Your task to perform on an android device: change keyboard looks Image 0: 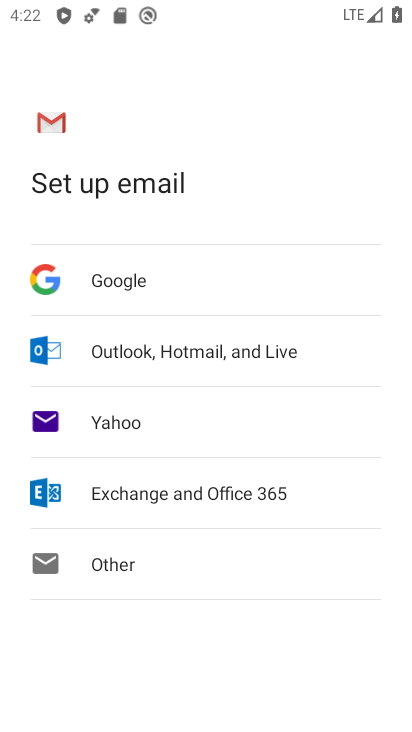
Step 0: press home button
Your task to perform on an android device: change keyboard looks Image 1: 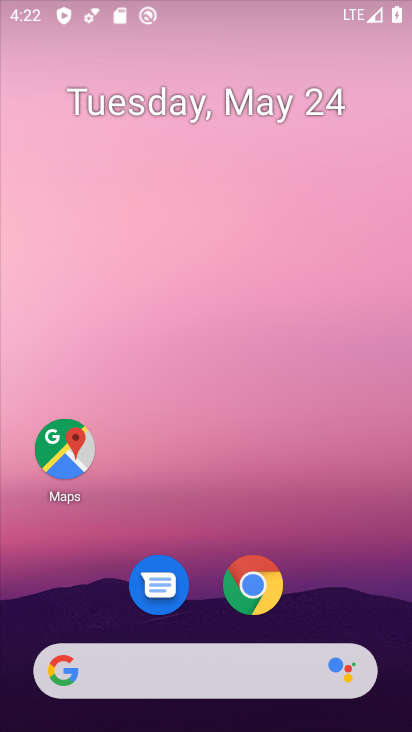
Step 1: drag from (253, 449) to (270, 81)
Your task to perform on an android device: change keyboard looks Image 2: 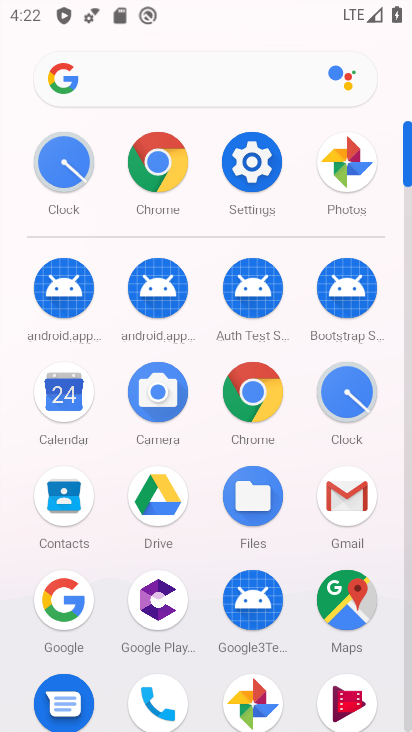
Step 2: click (250, 164)
Your task to perform on an android device: change keyboard looks Image 3: 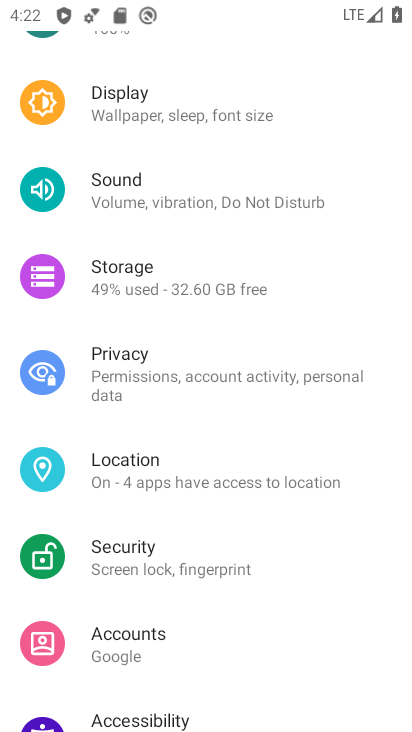
Step 3: drag from (220, 574) to (262, 80)
Your task to perform on an android device: change keyboard looks Image 4: 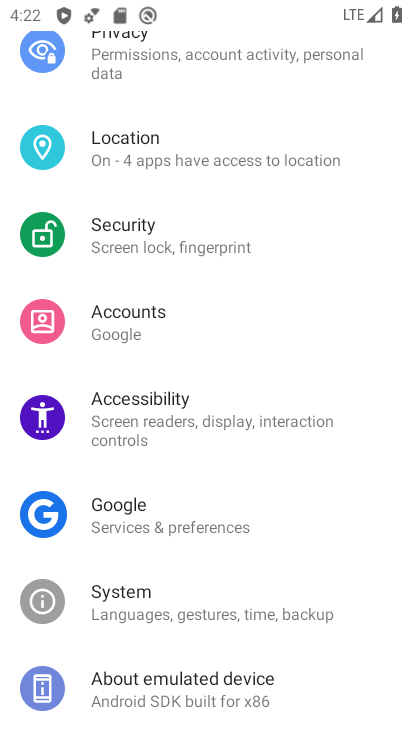
Step 4: click (207, 605)
Your task to perform on an android device: change keyboard looks Image 5: 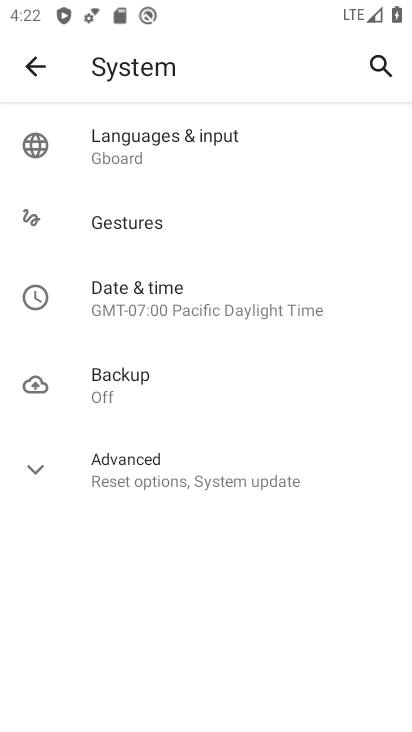
Step 5: click (208, 155)
Your task to perform on an android device: change keyboard looks Image 6: 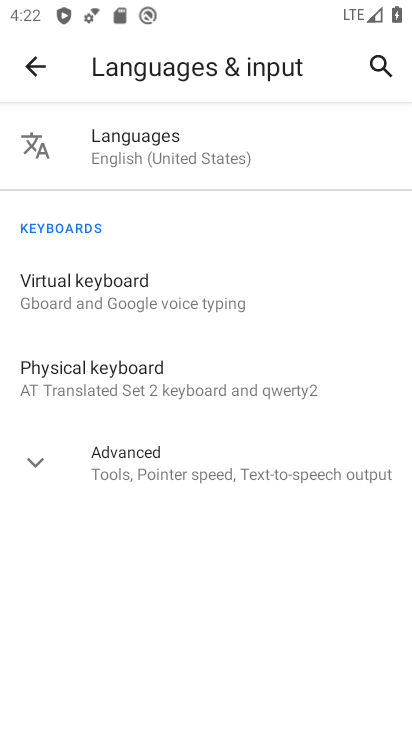
Step 6: click (163, 274)
Your task to perform on an android device: change keyboard looks Image 7: 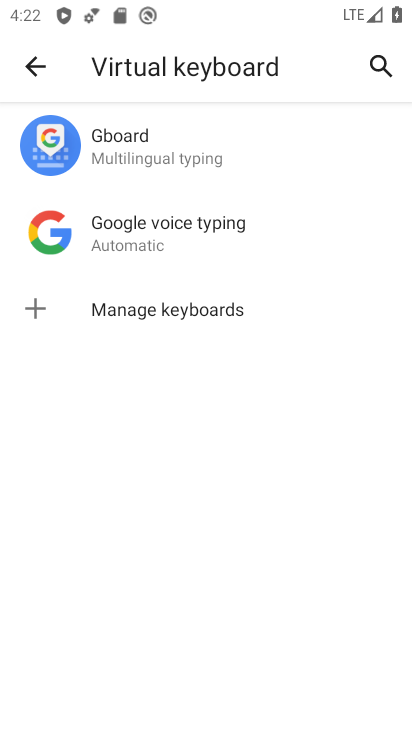
Step 7: click (152, 152)
Your task to perform on an android device: change keyboard looks Image 8: 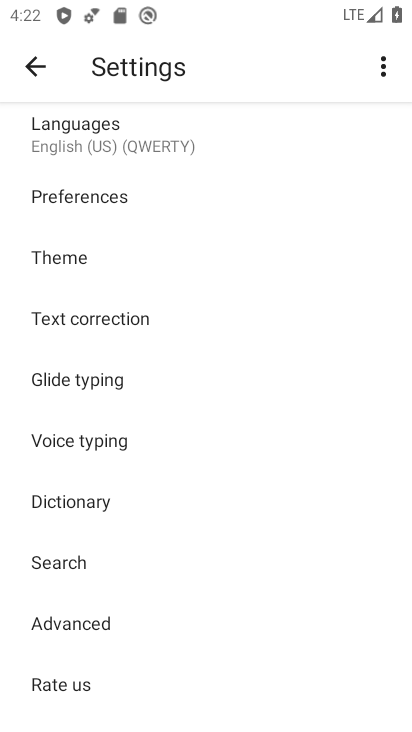
Step 8: click (106, 252)
Your task to perform on an android device: change keyboard looks Image 9: 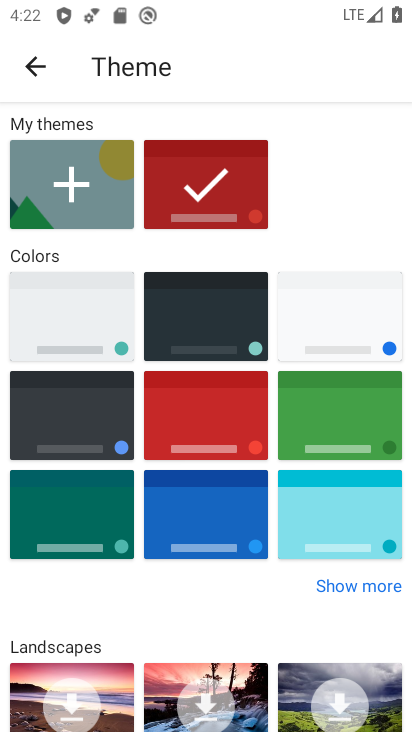
Step 9: click (174, 310)
Your task to perform on an android device: change keyboard looks Image 10: 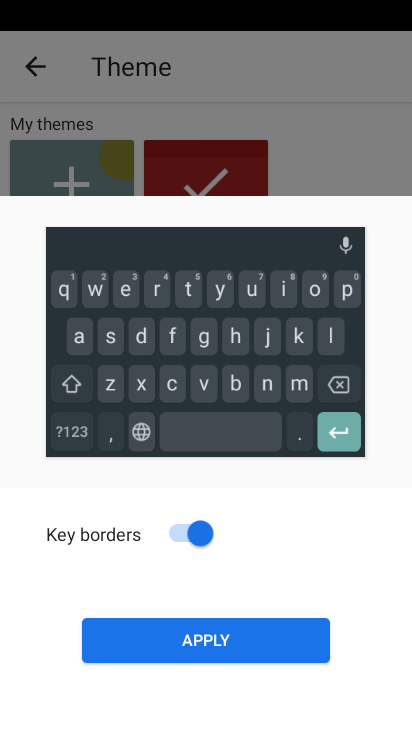
Step 10: click (234, 645)
Your task to perform on an android device: change keyboard looks Image 11: 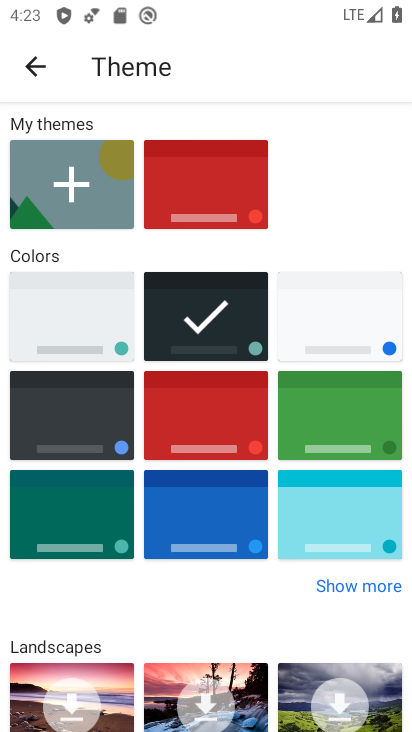
Step 11: task complete